Your task to perform on an android device: toggle priority inbox in the gmail app Image 0: 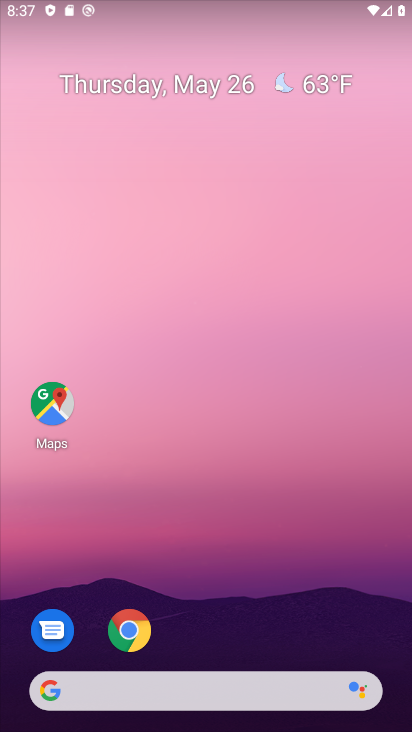
Step 0: drag from (155, 389) to (104, 84)
Your task to perform on an android device: toggle priority inbox in the gmail app Image 1: 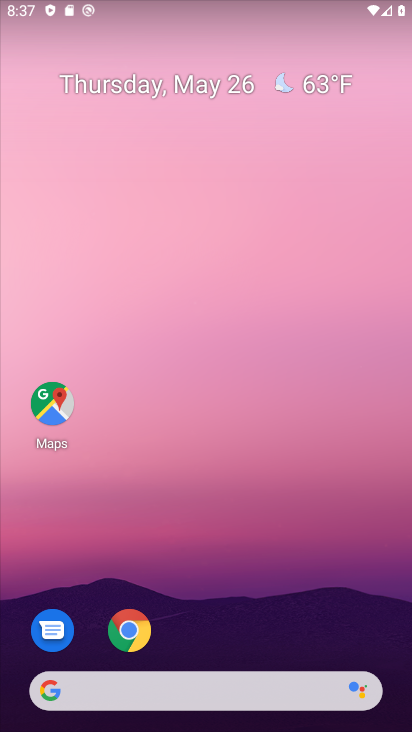
Step 1: drag from (276, 645) to (211, 102)
Your task to perform on an android device: toggle priority inbox in the gmail app Image 2: 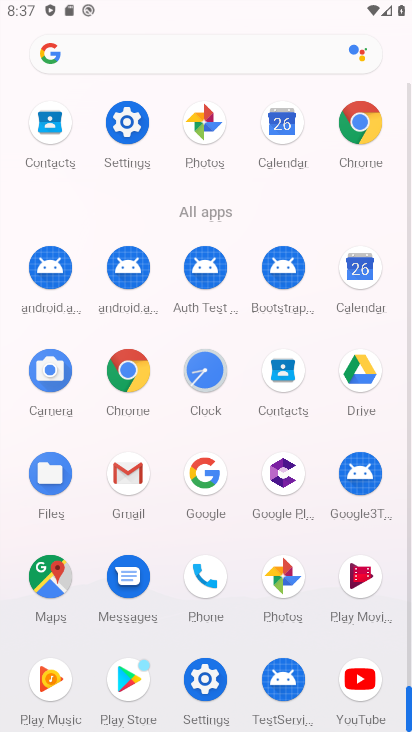
Step 2: click (122, 472)
Your task to perform on an android device: toggle priority inbox in the gmail app Image 3: 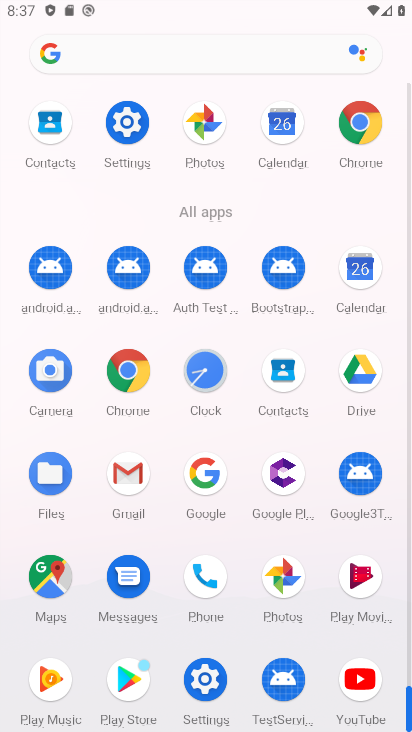
Step 3: click (122, 472)
Your task to perform on an android device: toggle priority inbox in the gmail app Image 4: 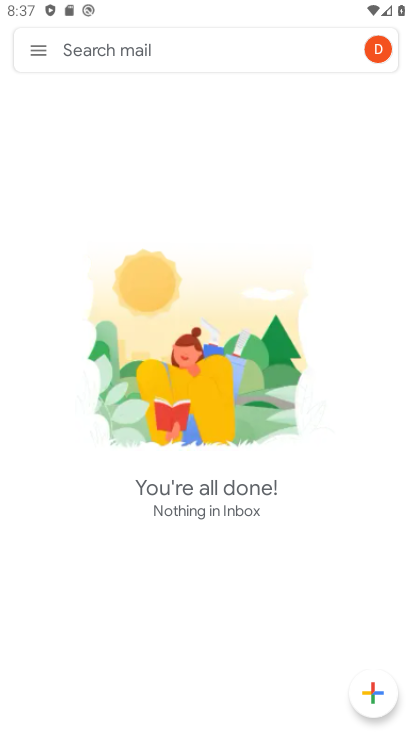
Step 4: click (35, 62)
Your task to perform on an android device: toggle priority inbox in the gmail app Image 5: 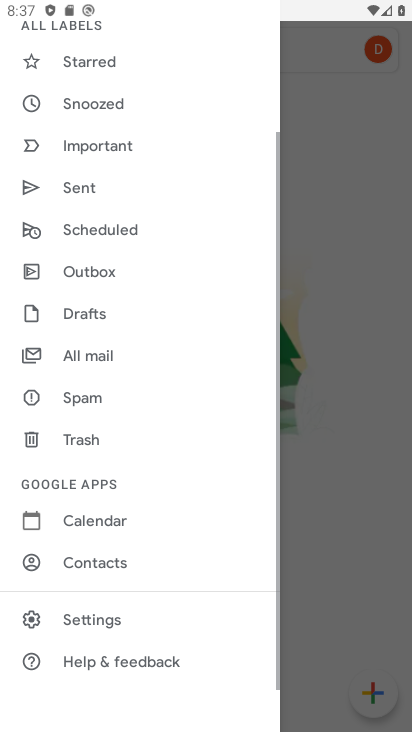
Step 5: click (35, 59)
Your task to perform on an android device: toggle priority inbox in the gmail app Image 6: 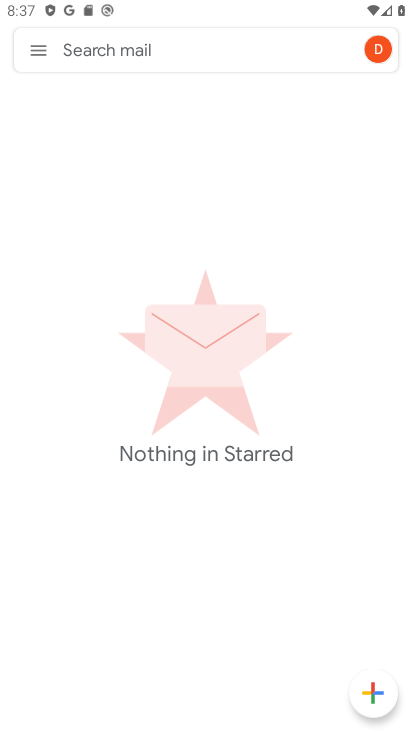
Step 6: click (40, 53)
Your task to perform on an android device: toggle priority inbox in the gmail app Image 7: 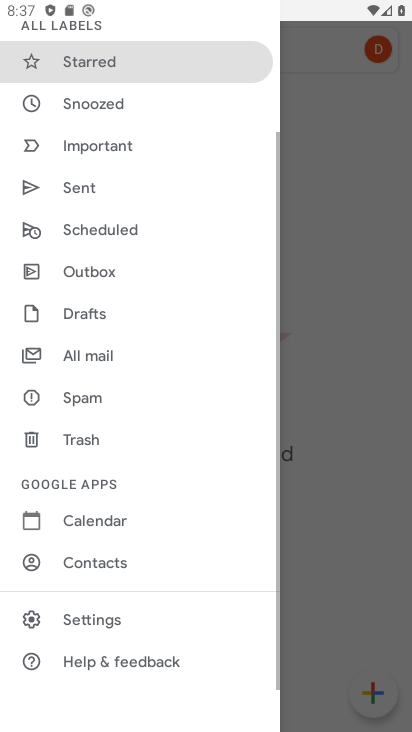
Step 7: click (41, 55)
Your task to perform on an android device: toggle priority inbox in the gmail app Image 8: 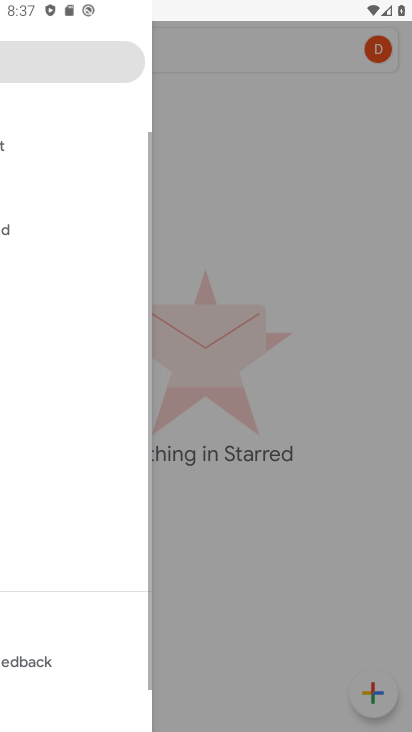
Step 8: click (85, 620)
Your task to perform on an android device: toggle priority inbox in the gmail app Image 9: 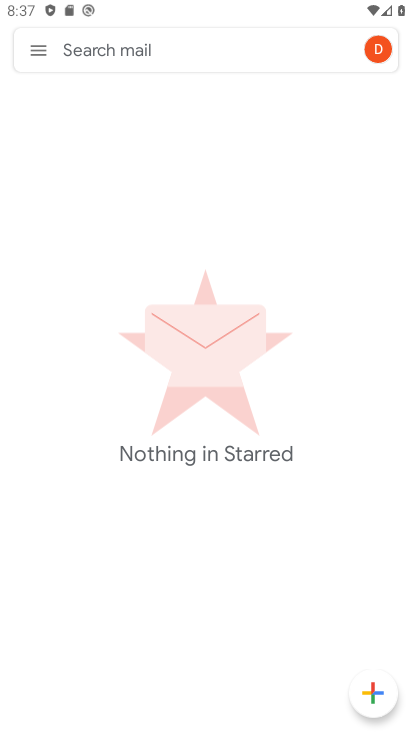
Step 9: click (91, 614)
Your task to perform on an android device: toggle priority inbox in the gmail app Image 10: 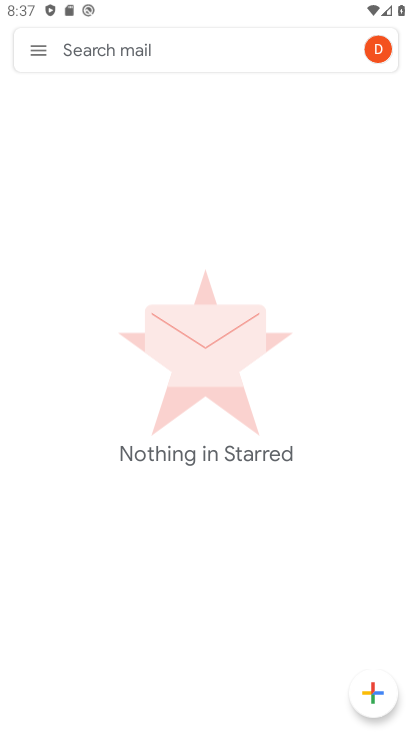
Step 10: click (92, 613)
Your task to perform on an android device: toggle priority inbox in the gmail app Image 11: 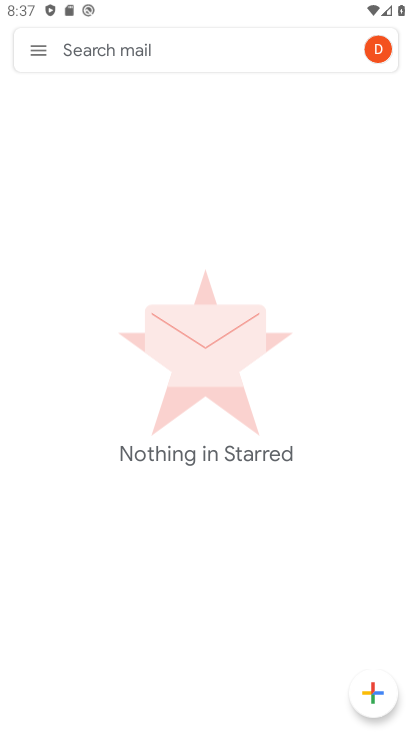
Step 11: drag from (36, 56) to (39, 356)
Your task to perform on an android device: toggle priority inbox in the gmail app Image 12: 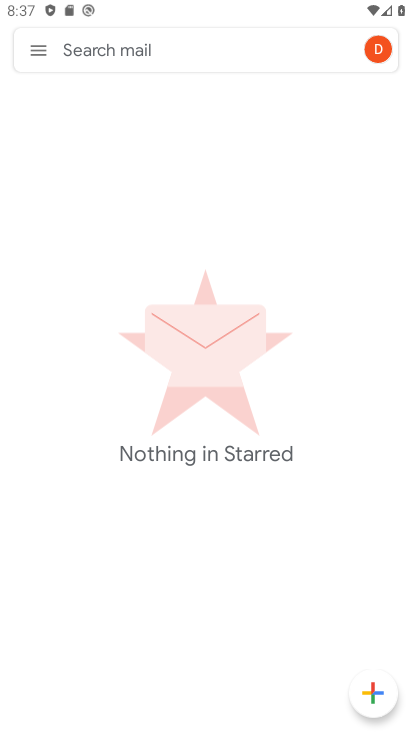
Step 12: click (33, 62)
Your task to perform on an android device: toggle priority inbox in the gmail app Image 13: 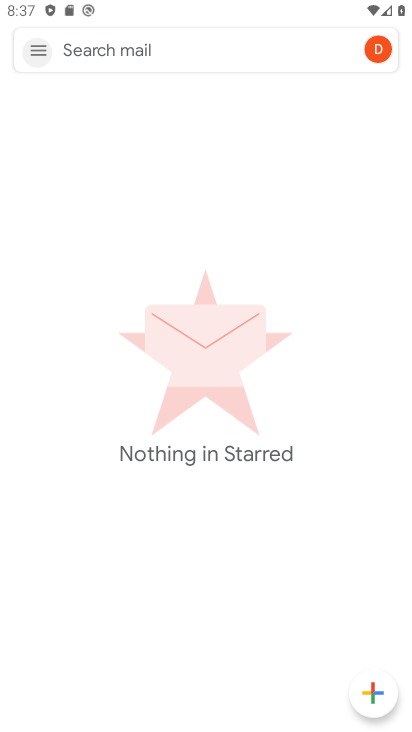
Step 13: click (35, 58)
Your task to perform on an android device: toggle priority inbox in the gmail app Image 14: 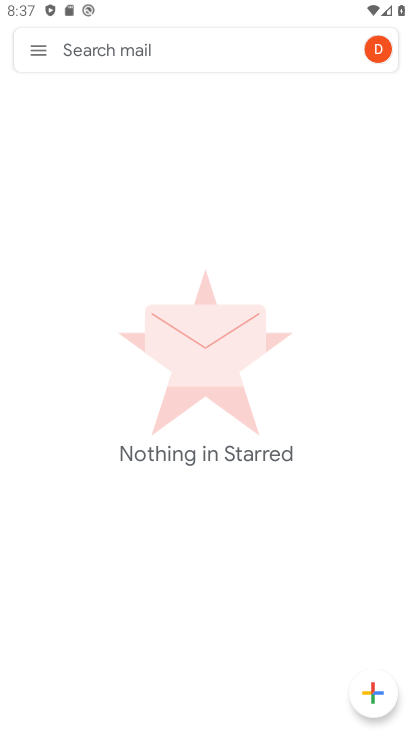
Step 14: click (37, 53)
Your task to perform on an android device: toggle priority inbox in the gmail app Image 15: 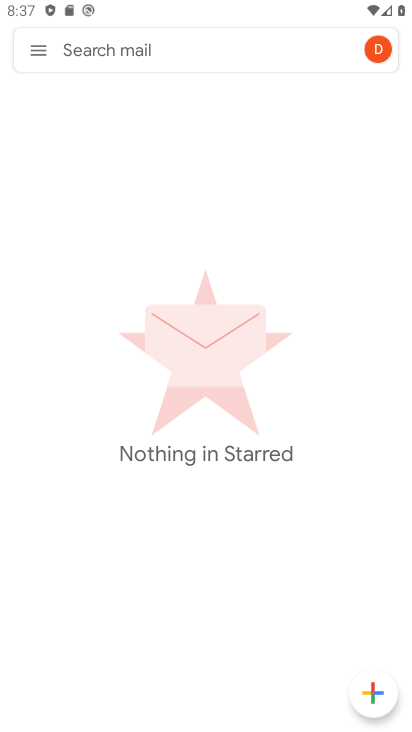
Step 15: click (43, 44)
Your task to perform on an android device: toggle priority inbox in the gmail app Image 16: 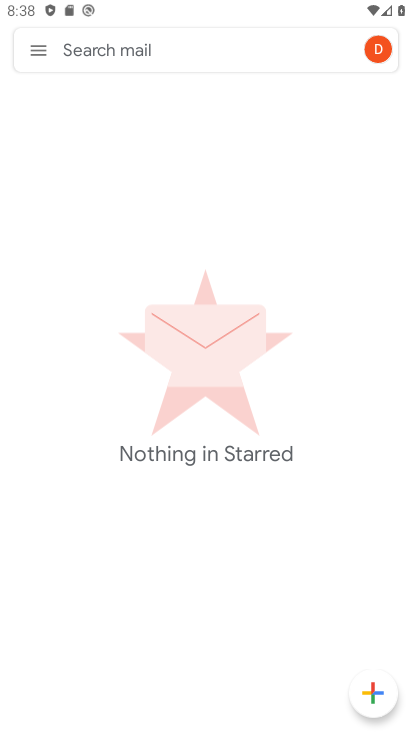
Step 16: click (40, 53)
Your task to perform on an android device: toggle priority inbox in the gmail app Image 17: 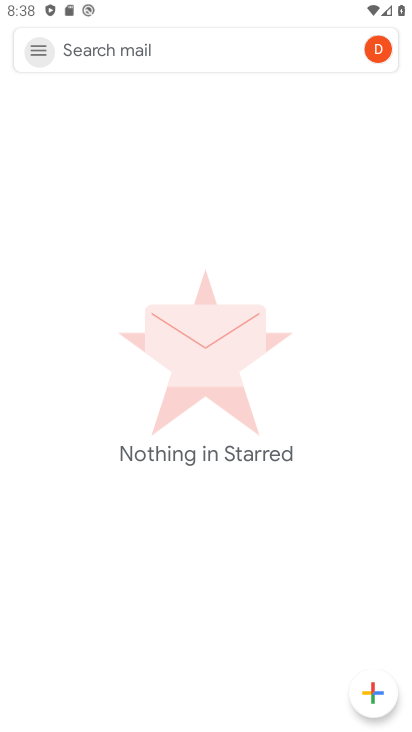
Step 17: click (40, 53)
Your task to perform on an android device: toggle priority inbox in the gmail app Image 18: 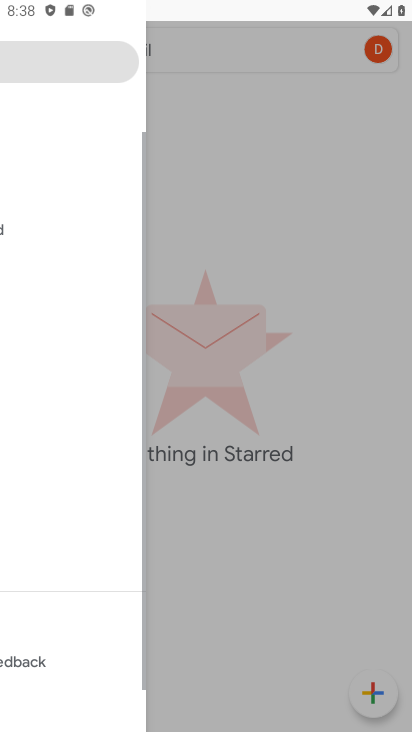
Step 18: click (41, 52)
Your task to perform on an android device: toggle priority inbox in the gmail app Image 19: 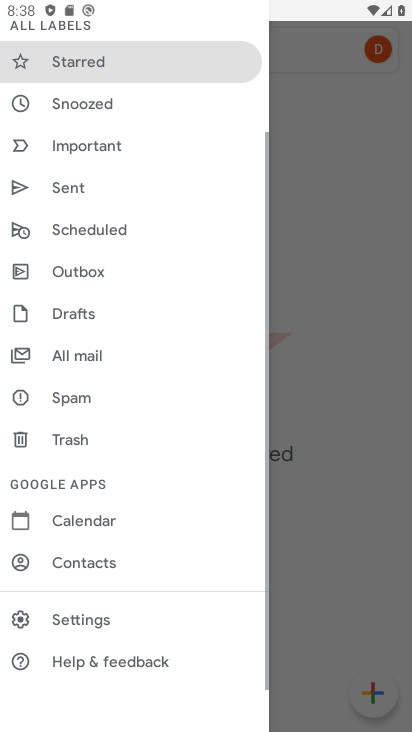
Step 19: click (41, 52)
Your task to perform on an android device: toggle priority inbox in the gmail app Image 20: 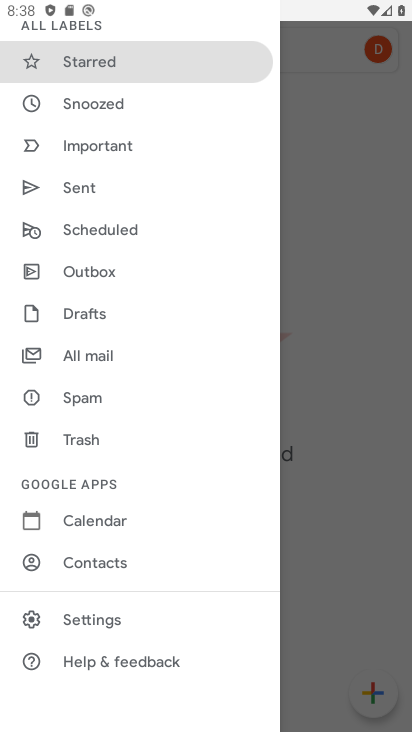
Step 20: click (93, 615)
Your task to perform on an android device: toggle priority inbox in the gmail app Image 21: 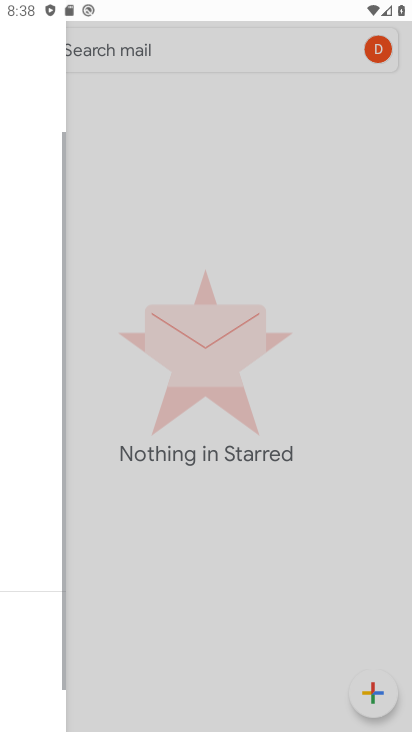
Step 21: click (93, 615)
Your task to perform on an android device: toggle priority inbox in the gmail app Image 22: 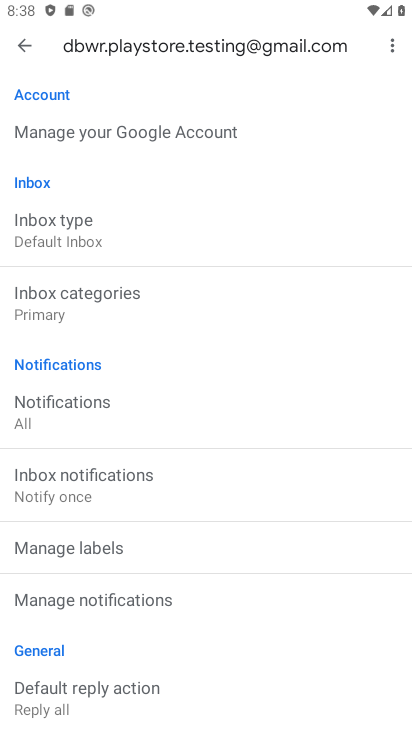
Step 22: click (49, 231)
Your task to perform on an android device: toggle priority inbox in the gmail app Image 23: 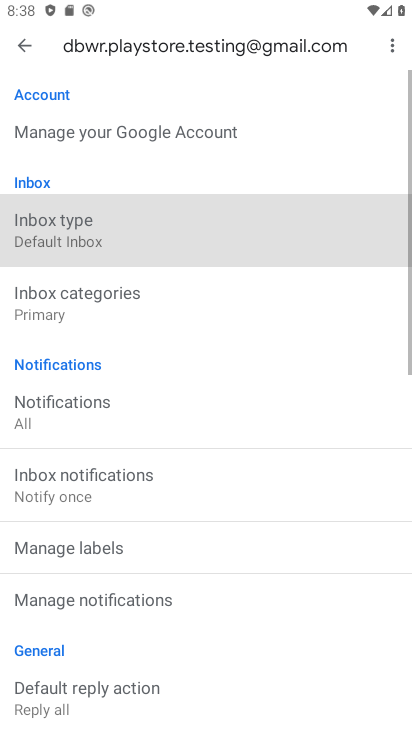
Step 23: click (49, 229)
Your task to perform on an android device: toggle priority inbox in the gmail app Image 24: 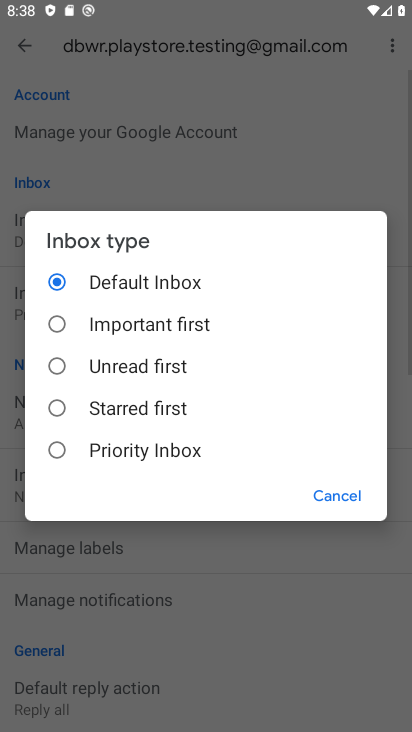
Step 24: click (60, 455)
Your task to perform on an android device: toggle priority inbox in the gmail app Image 25: 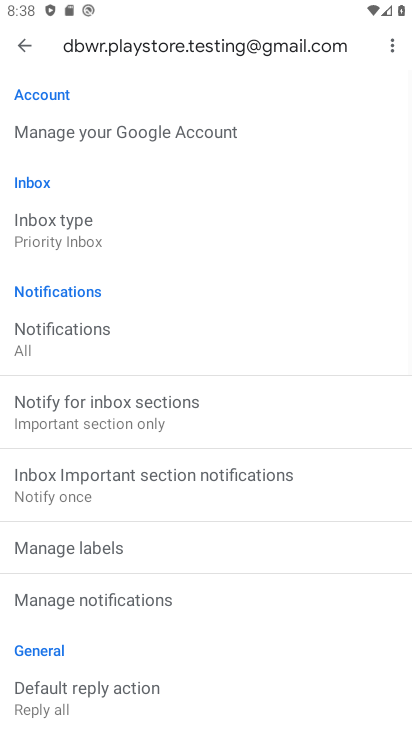
Step 25: task complete